Your task to perform on an android device: toggle javascript in the chrome app Image 0: 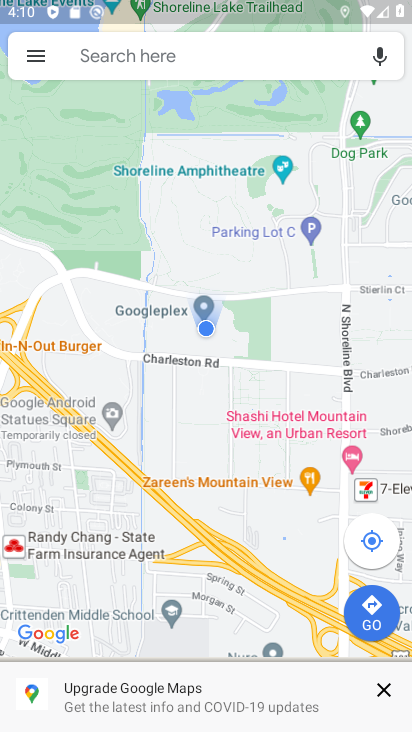
Step 0: press back button
Your task to perform on an android device: toggle javascript in the chrome app Image 1: 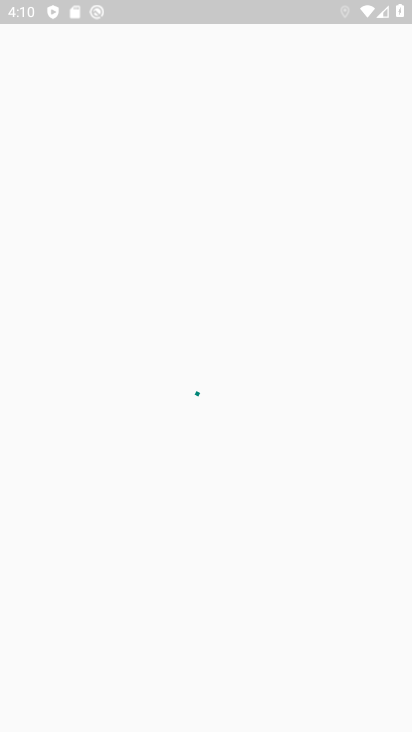
Step 1: press home button
Your task to perform on an android device: toggle javascript in the chrome app Image 2: 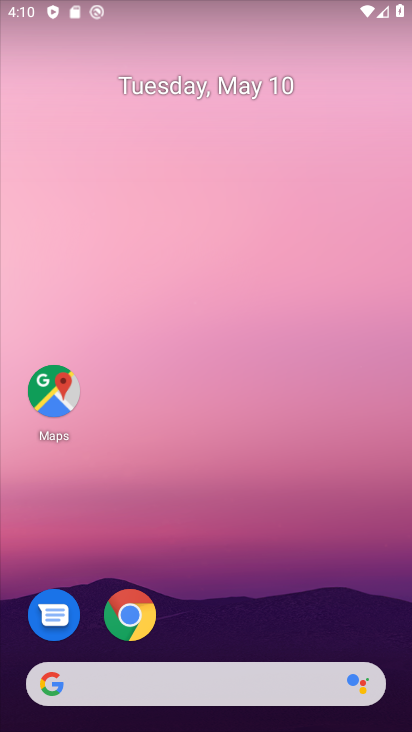
Step 2: drag from (186, 662) to (306, 243)
Your task to perform on an android device: toggle javascript in the chrome app Image 3: 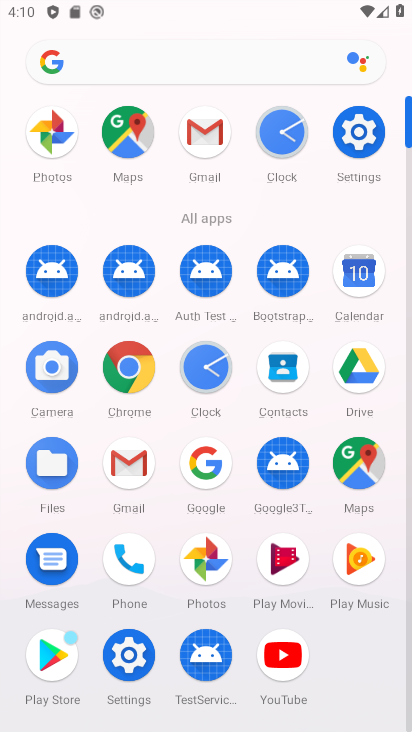
Step 3: click (139, 373)
Your task to perform on an android device: toggle javascript in the chrome app Image 4: 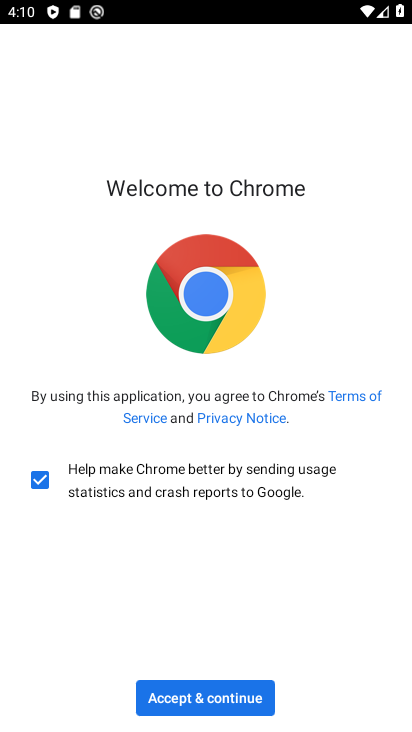
Step 4: click (203, 692)
Your task to perform on an android device: toggle javascript in the chrome app Image 5: 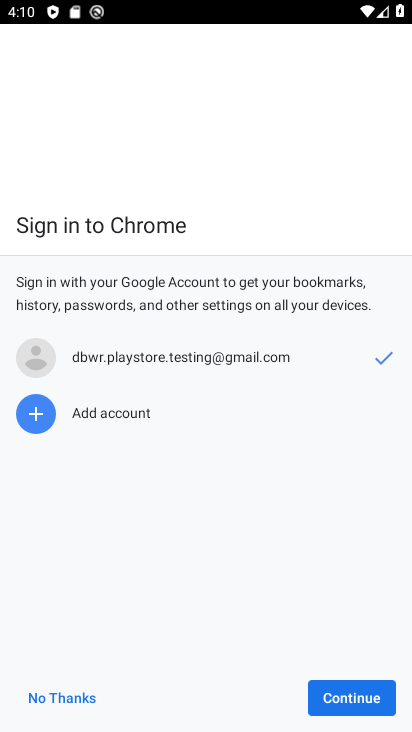
Step 5: click (386, 709)
Your task to perform on an android device: toggle javascript in the chrome app Image 6: 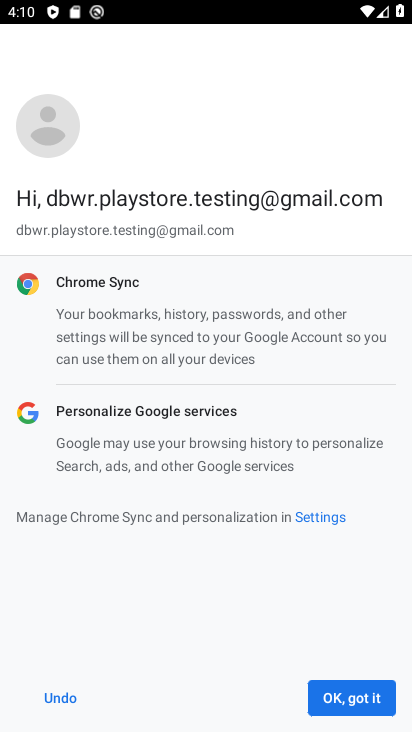
Step 6: click (386, 709)
Your task to perform on an android device: toggle javascript in the chrome app Image 7: 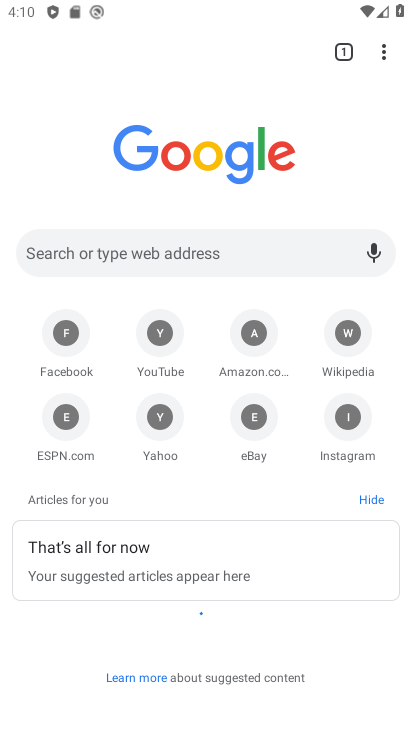
Step 7: click (391, 49)
Your task to perform on an android device: toggle javascript in the chrome app Image 8: 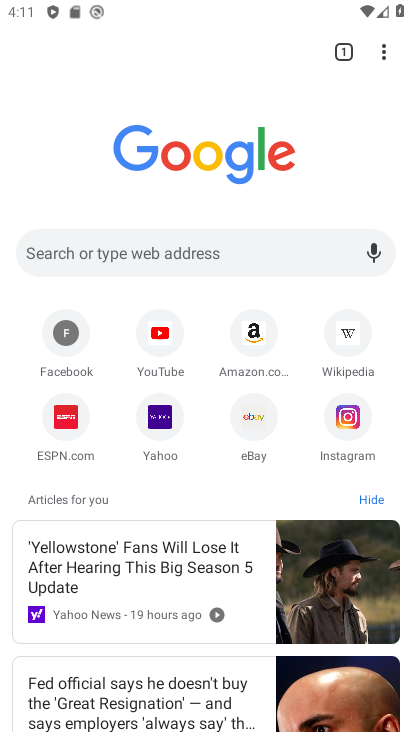
Step 8: drag from (388, 51) to (257, 454)
Your task to perform on an android device: toggle javascript in the chrome app Image 9: 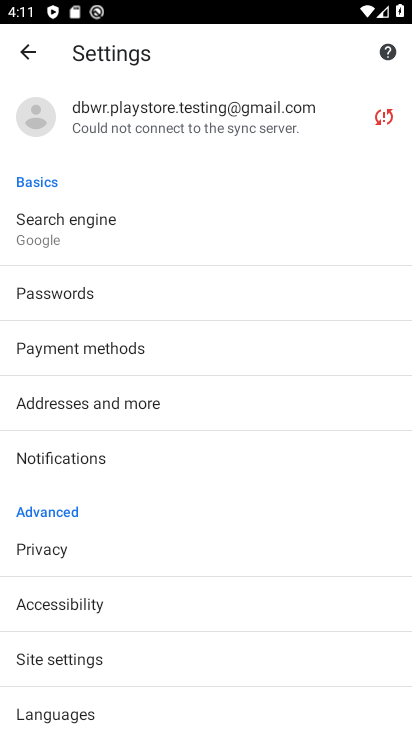
Step 9: drag from (256, 640) to (331, 363)
Your task to perform on an android device: toggle javascript in the chrome app Image 10: 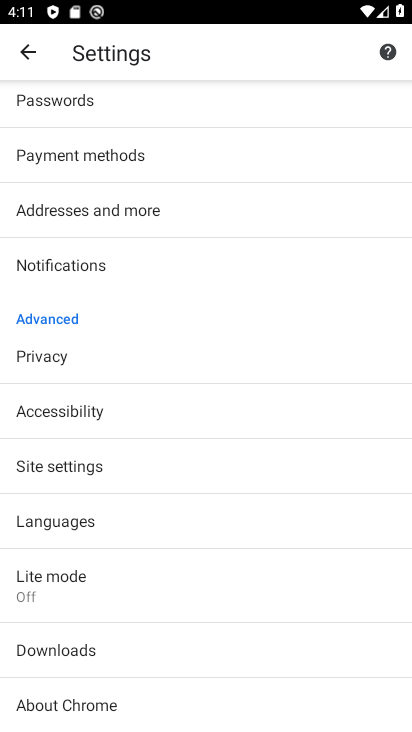
Step 10: click (115, 462)
Your task to perform on an android device: toggle javascript in the chrome app Image 11: 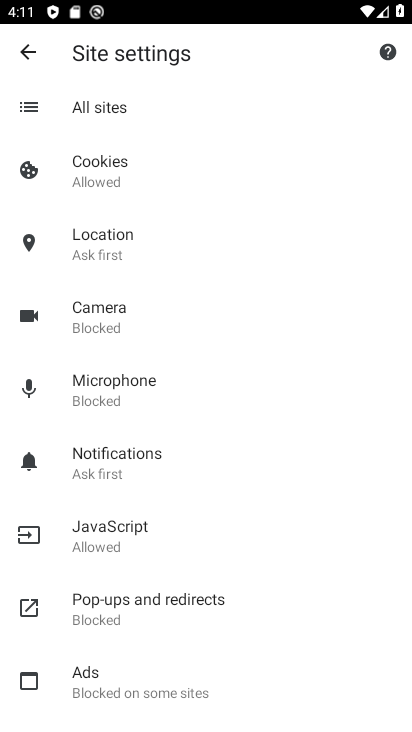
Step 11: click (150, 538)
Your task to perform on an android device: toggle javascript in the chrome app Image 12: 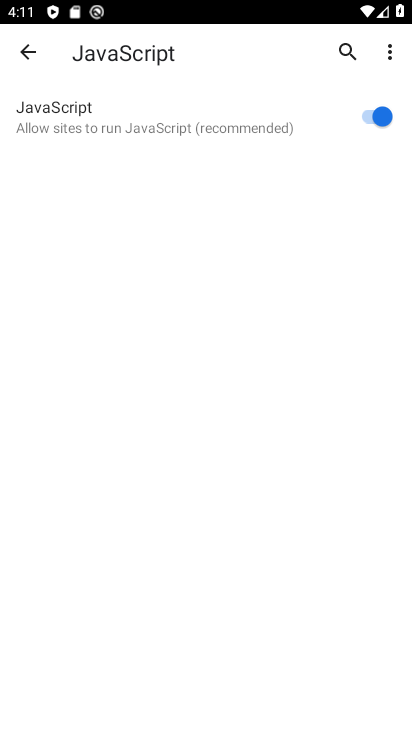
Step 12: click (380, 114)
Your task to perform on an android device: toggle javascript in the chrome app Image 13: 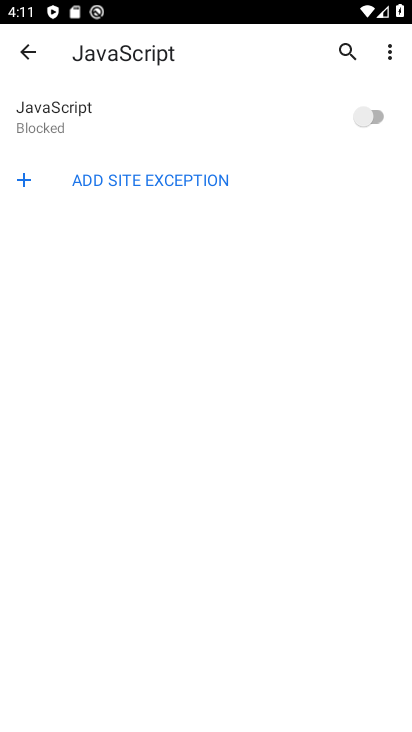
Step 13: task complete